Your task to perform on an android device: Do I have any events tomorrow? Image 0: 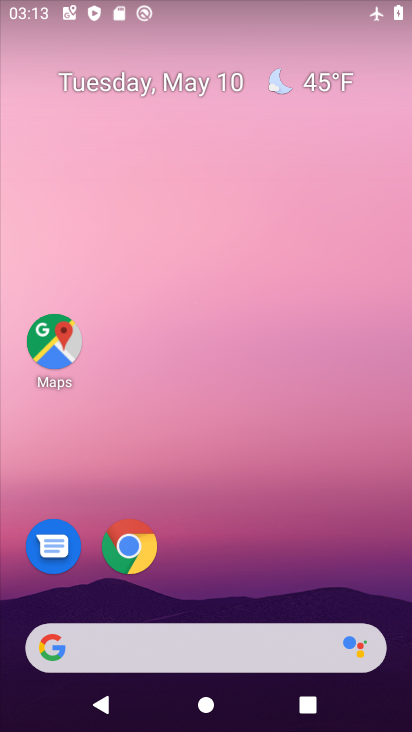
Step 0: drag from (269, 524) to (202, 3)
Your task to perform on an android device: Do I have any events tomorrow? Image 1: 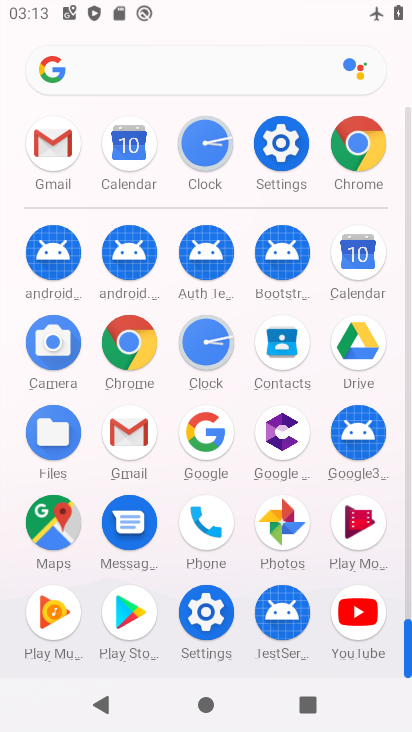
Step 1: drag from (10, 562) to (25, 277)
Your task to perform on an android device: Do I have any events tomorrow? Image 2: 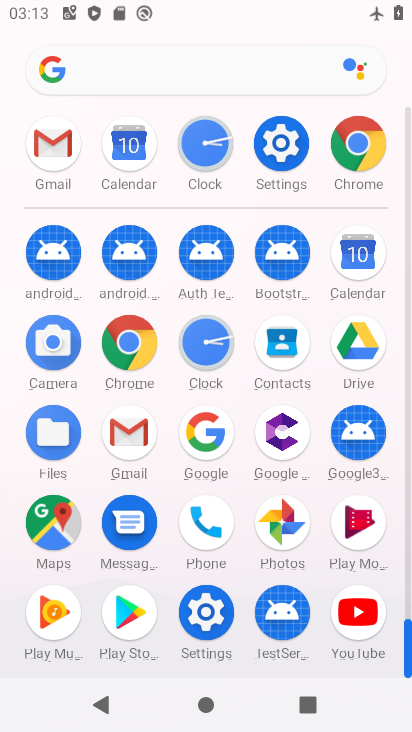
Step 2: click (118, 134)
Your task to perform on an android device: Do I have any events tomorrow? Image 3: 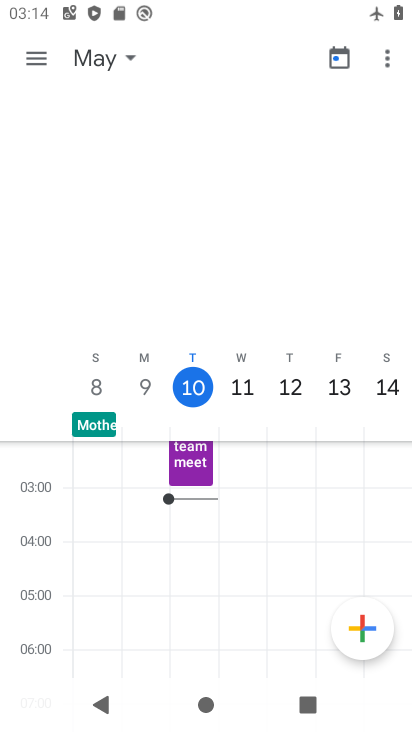
Step 3: click (31, 50)
Your task to perform on an android device: Do I have any events tomorrow? Image 4: 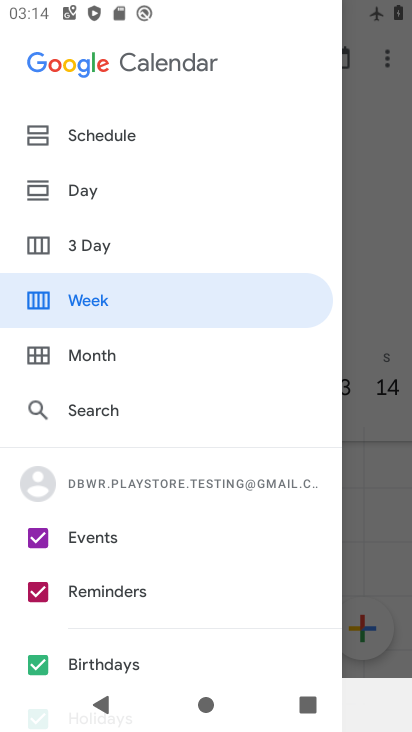
Step 4: click (96, 185)
Your task to perform on an android device: Do I have any events tomorrow? Image 5: 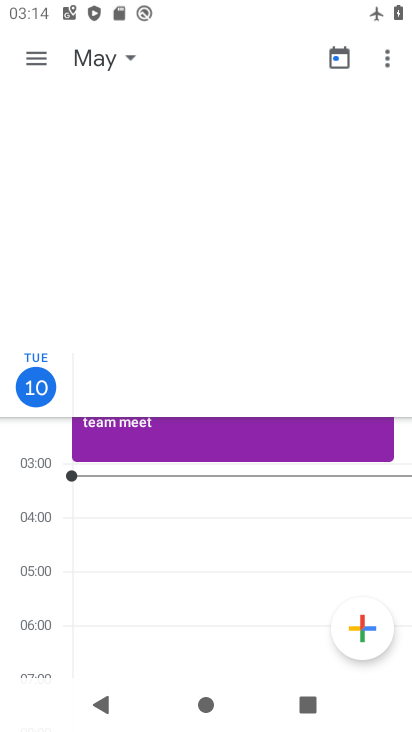
Step 5: task complete